Your task to perform on an android device: allow notifications from all sites in the chrome app Image 0: 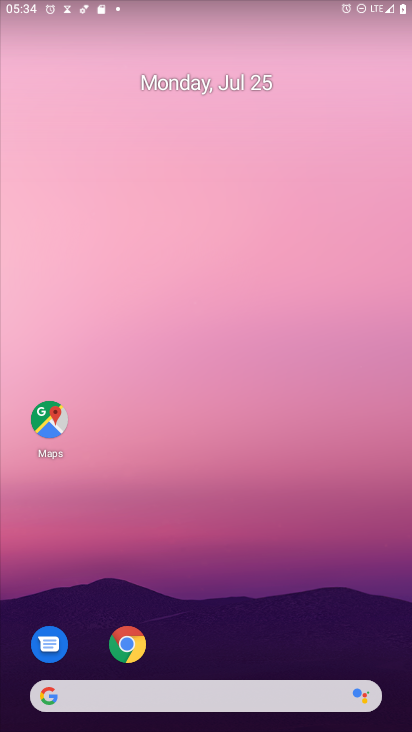
Step 0: press home button
Your task to perform on an android device: allow notifications from all sites in the chrome app Image 1: 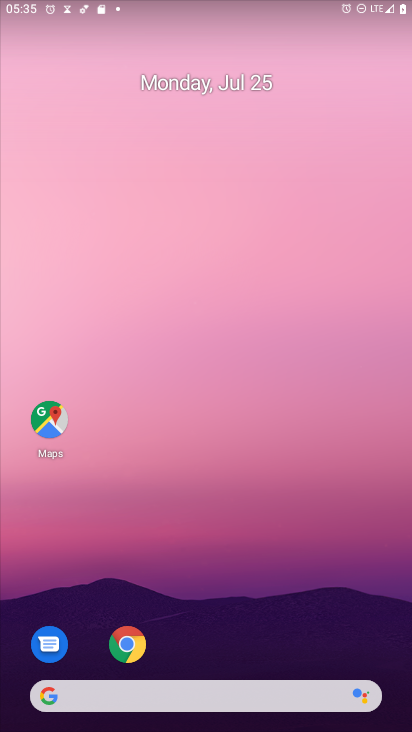
Step 1: drag from (227, 656) to (236, 248)
Your task to perform on an android device: allow notifications from all sites in the chrome app Image 2: 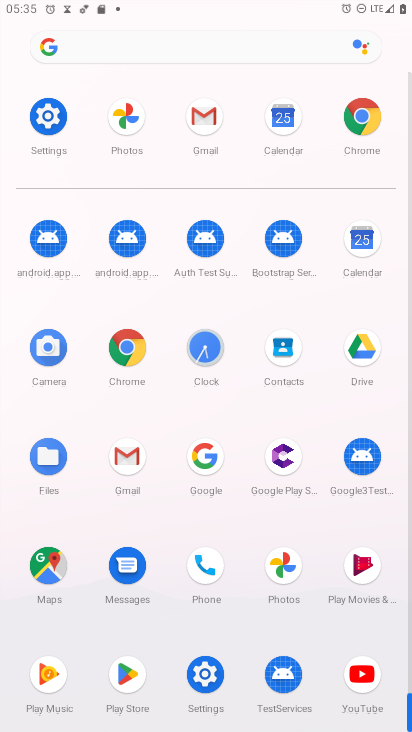
Step 2: click (363, 123)
Your task to perform on an android device: allow notifications from all sites in the chrome app Image 3: 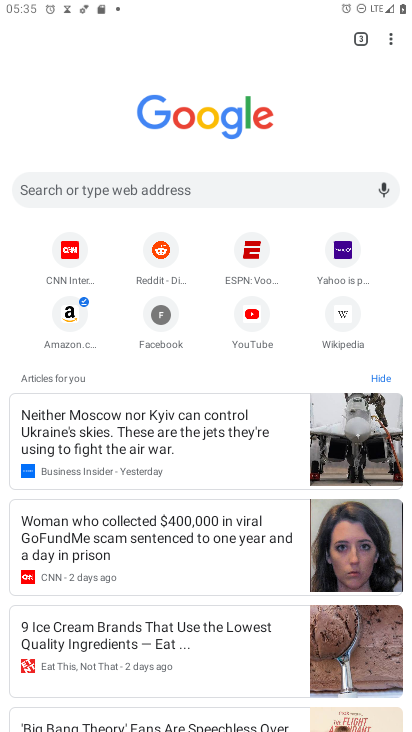
Step 3: drag from (384, 37) to (259, 324)
Your task to perform on an android device: allow notifications from all sites in the chrome app Image 4: 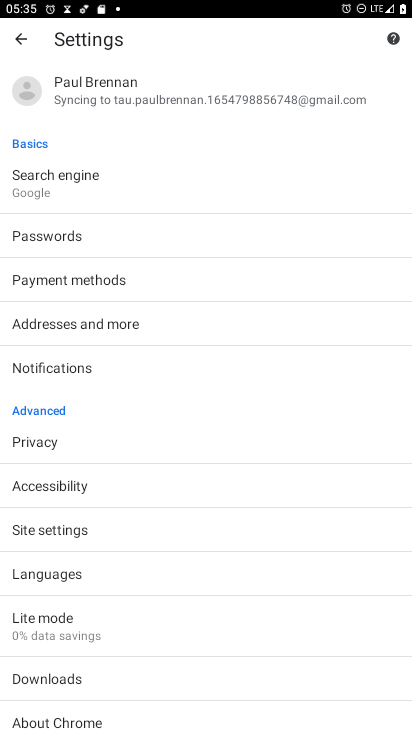
Step 4: click (42, 532)
Your task to perform on an android device: allow notifications from all sites in the chrome app Image 5: 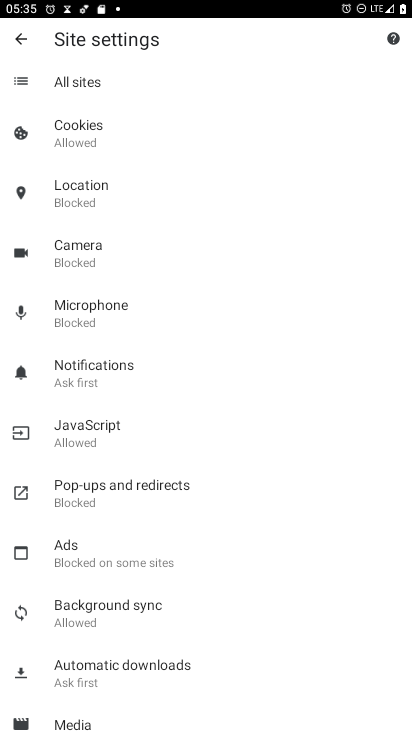
Step 5: click (69, 372)
Your task to perform on an android device: allow notifications from all sites in the chrome app Image 6: 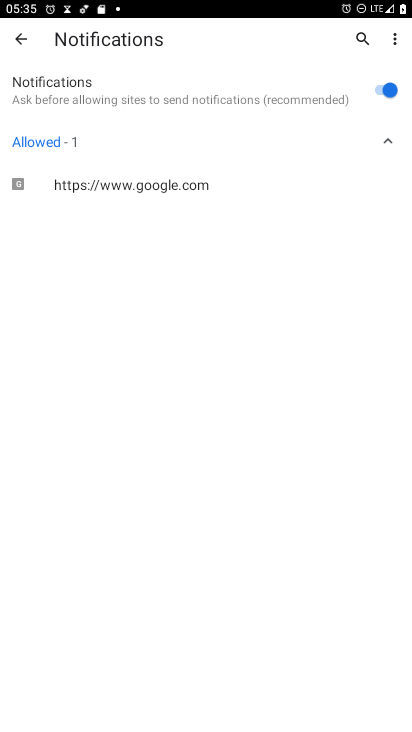
Step 6: task complete